Your task to perform on an android device: turn on bluetooth scan Image 0: 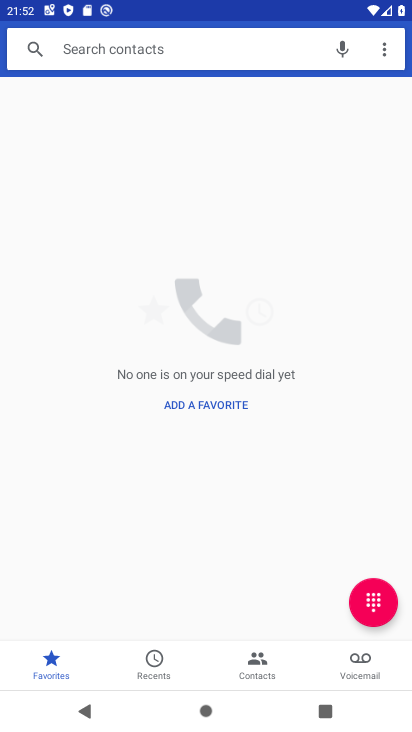
Step 0: press back button
Your task to perform on an android device: turn on bluetooth scan Image 1: 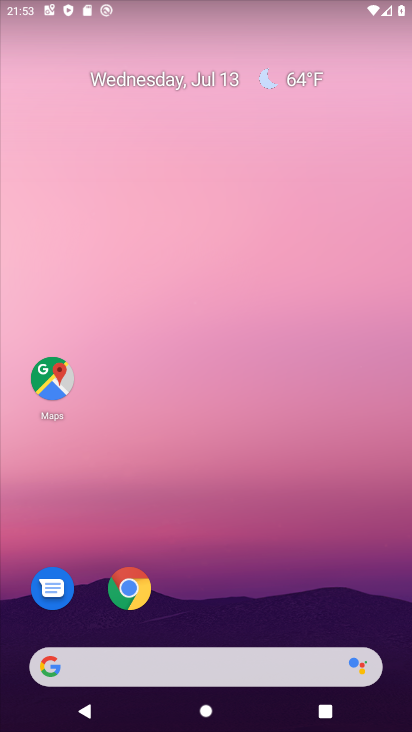
Step 1: drag from (234, 586) to (288, 121)
Your task to perform on an android device: turn on bluetooth scan Image 2: 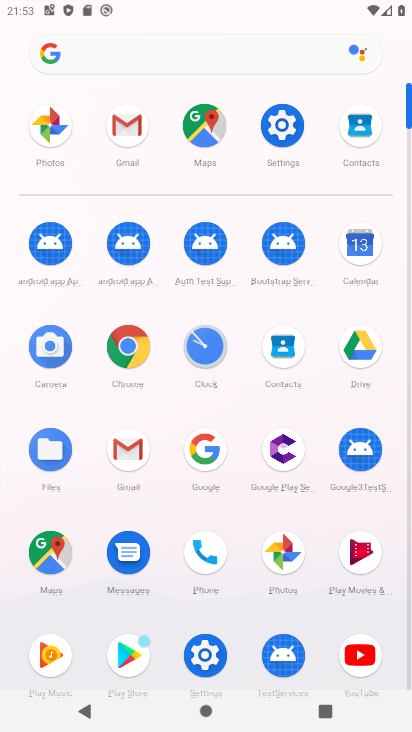
Step 2: click (282, 141)
Your task to perform on an android device: turn on bluetooth scan Image 3: 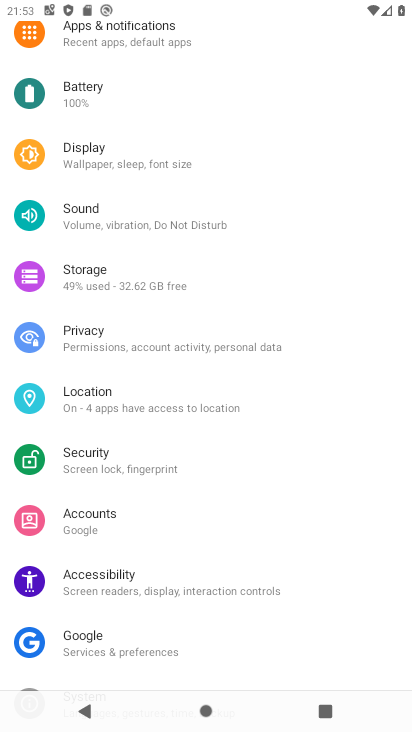
Step 3: drag from (226, 152) to (196, 731)
Your task to perform on an android device: turn on bluetooth scan Image 4: 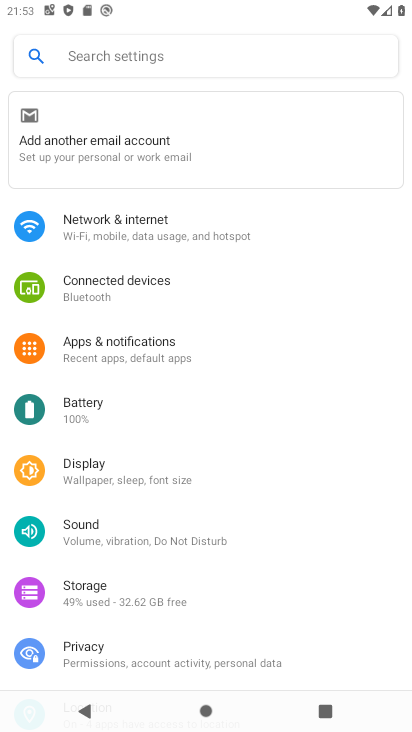
Step 4: click (125, 282)
Your task to perform on an android device: turn on bluetooth scan Image 5: 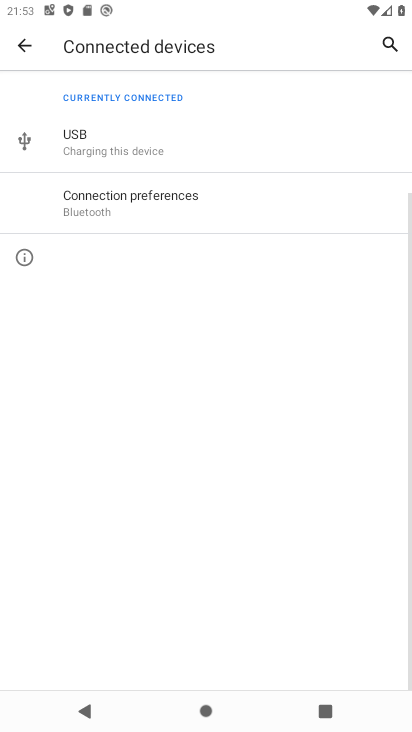
Step 5: click (146, 208)
Your task to perform on an android device: turn on bluetooth scan Image 6: 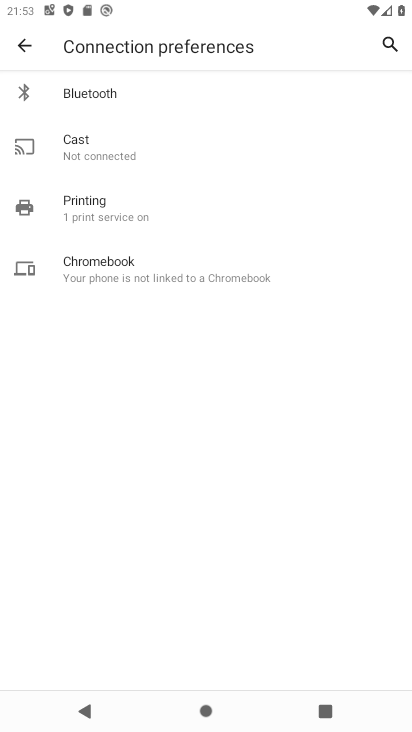
Step 6: click (108, 89)
Your task to perform on an android device: turn on bluetooth scan Image 7: 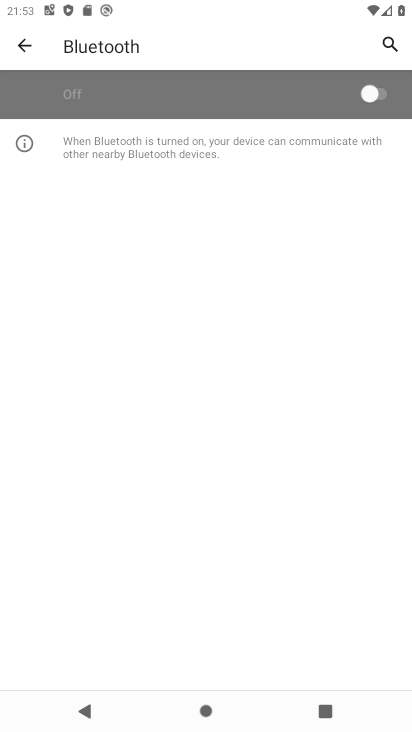
Step 7: click (358, 92)
Your task to perform on an android device: turn on bluetooth scan Image 8: 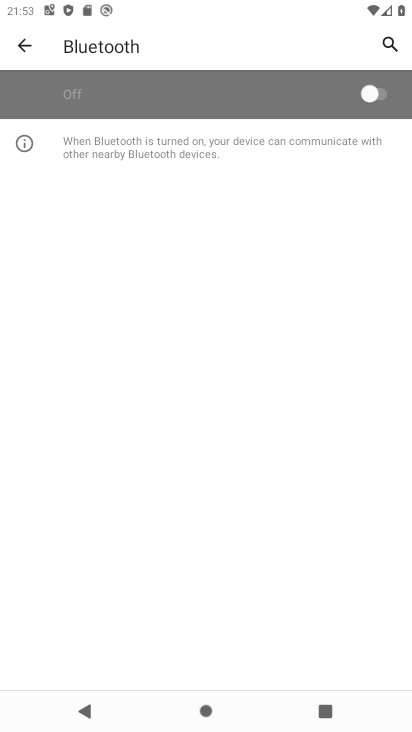
Step 8: task complete